Your task to perform on an android device: Open Google Chrome and click the shortcut for Amazon.com Image 0: 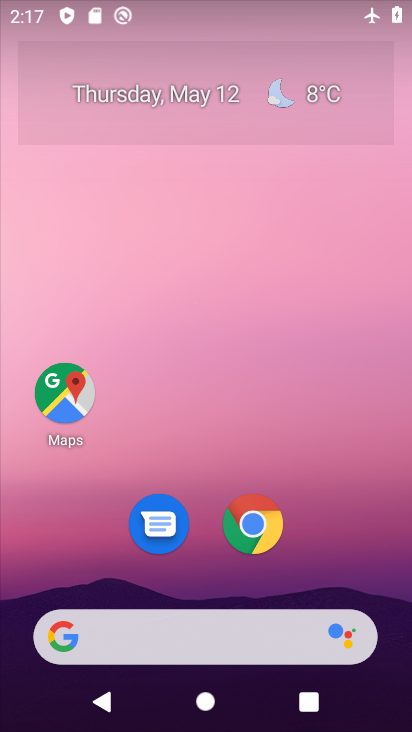
Step 0: click (258, 532)
Your task to perform on an android device: Open Google Chrome and click the shortcut for Amazon.com Image 1: 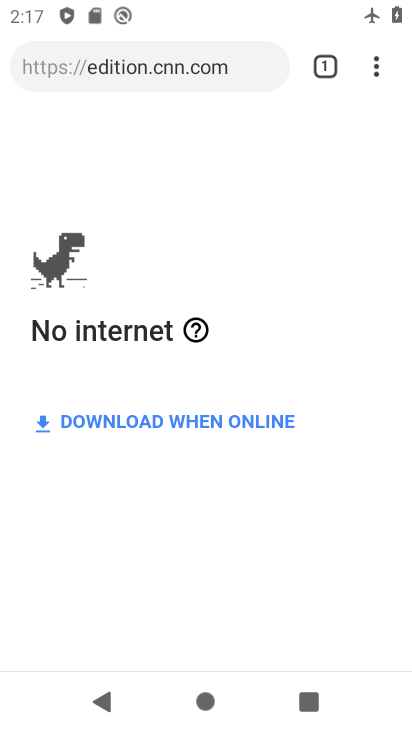
Step 1: click (368, 62)
Your task to perform on an android device: Open Google Chrome and click the shortcut for Amazon.com Image 2: 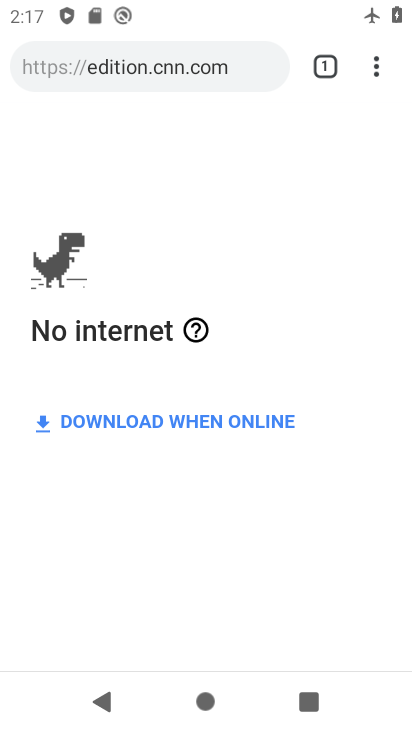
Step 2: drag from (368, 61) to (258, 134)
Your task to perform on an android device: Open Google Chrome and click the shortcut for Amazon.com Image 3: 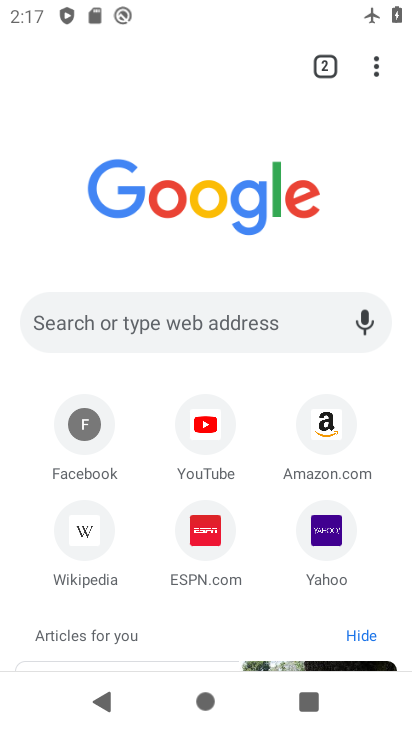
Step 3: click (322, 418)
Your task to perform on an android device: Open Google Chrome and click the shortcut for Amazon.com Image 4: 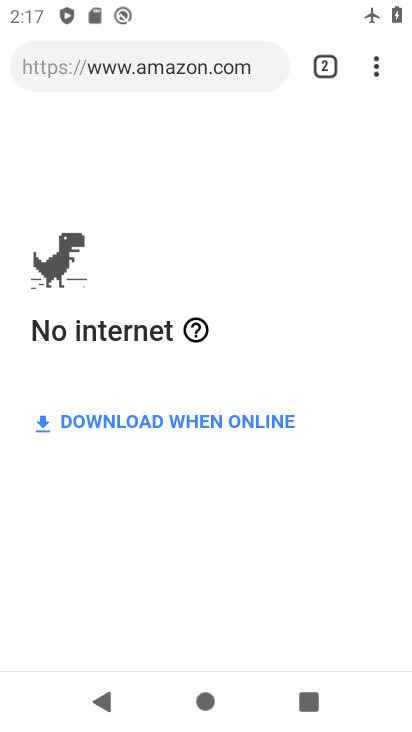
Step 4: task complete